Your task to perform on an android device: Find coffee shops on Maps Image 0: 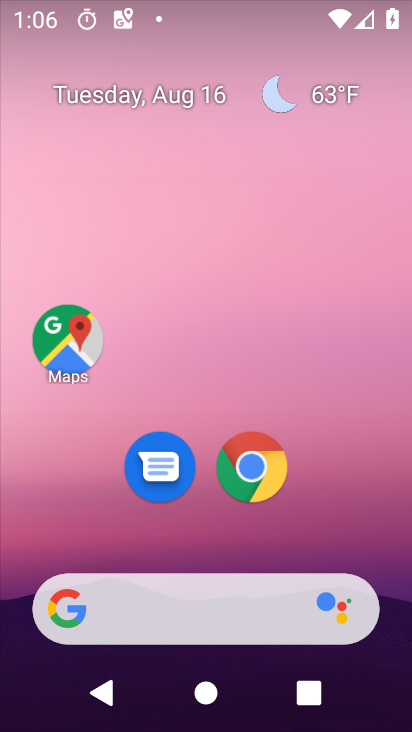
Step 0: press home button
Your task to perform on an android device: Find coffee shops on Maps Image 1: 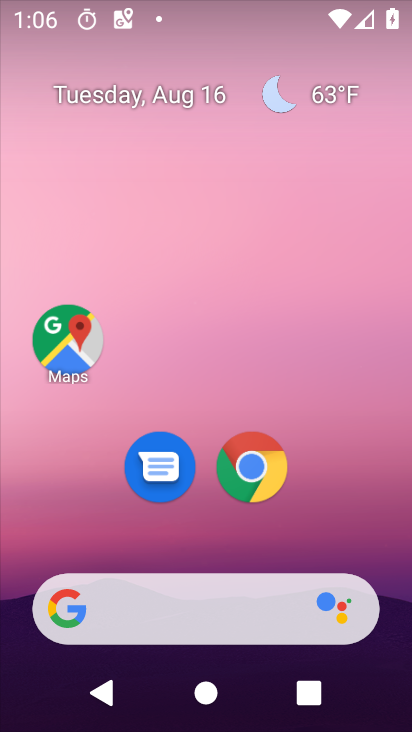
Step 1: drag from (330, 532) to (345, 67)
Your task to perform on an android device: Find coffee shops on Maps Image 2: 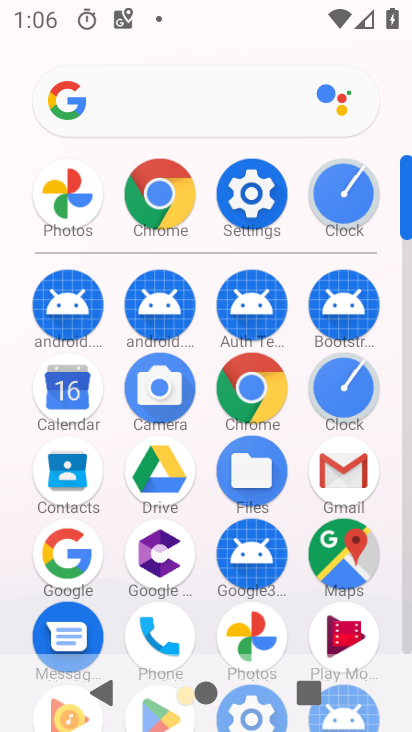
Step 2: click (346, 543)
Your task to perform on an android device: Find coffee shops on Maps Image 3: 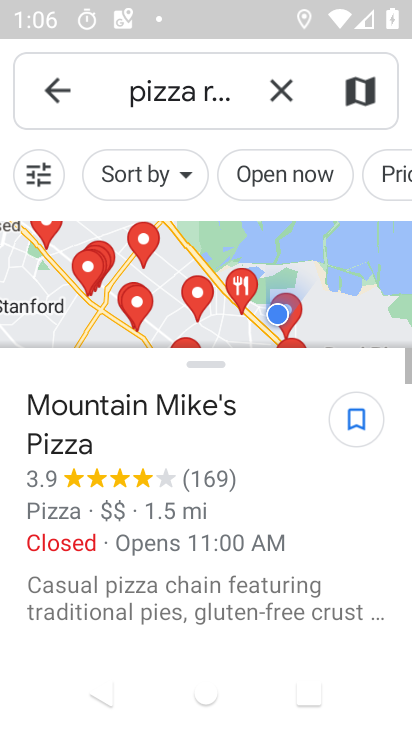
Step 3: press back button
Your task to perform on an android device: Find coffee shops on Maps Image 4: 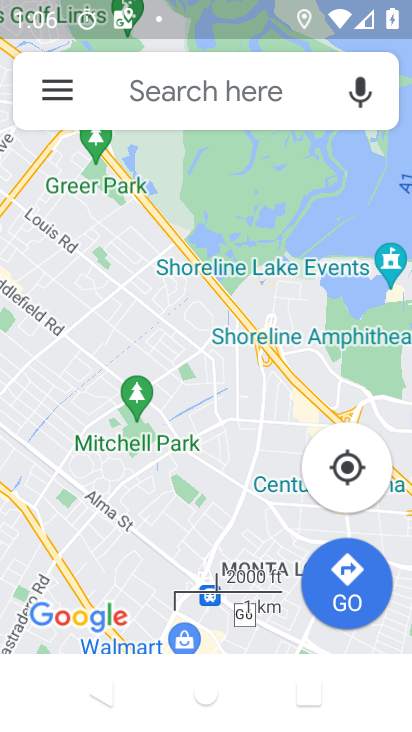
Step 4: click (190, 94)
Your task to perform on an android device: Find coffee shops on Maps Image 5: 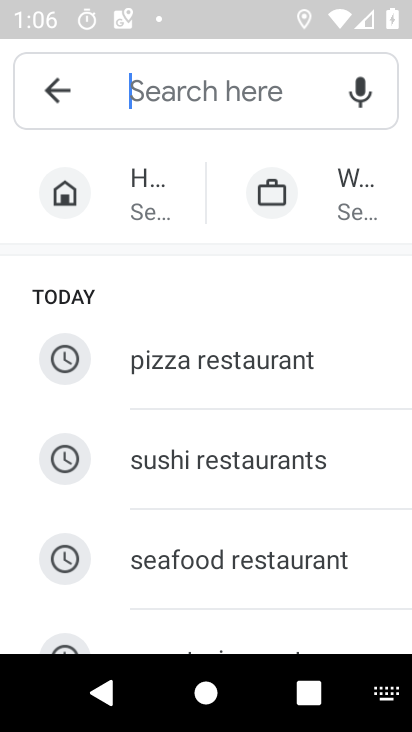
Step 5: press enter
Your task to perform on an android device: Find coffee shops on Maps Image 6: 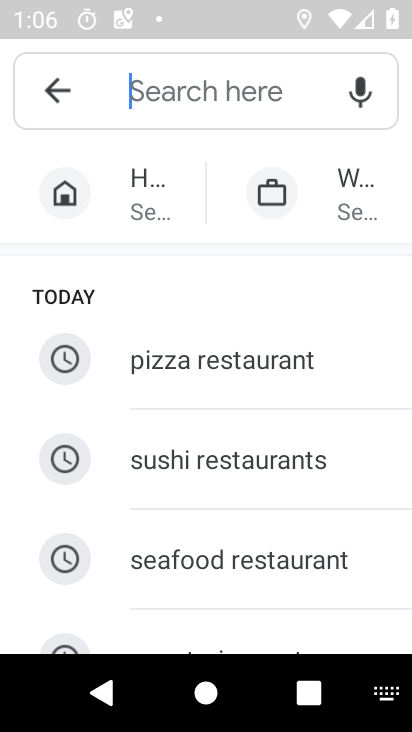
Step 6: type "coffee"
Your task to perform on an android device: Find coffee shops on Maps Image 7: 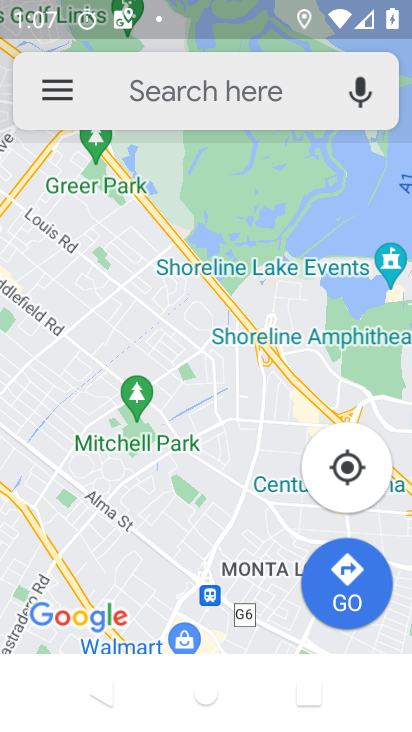
Step 7: click (217, 90)
Your task to perform on an android device: Find coffee shops on Maps Image 8: 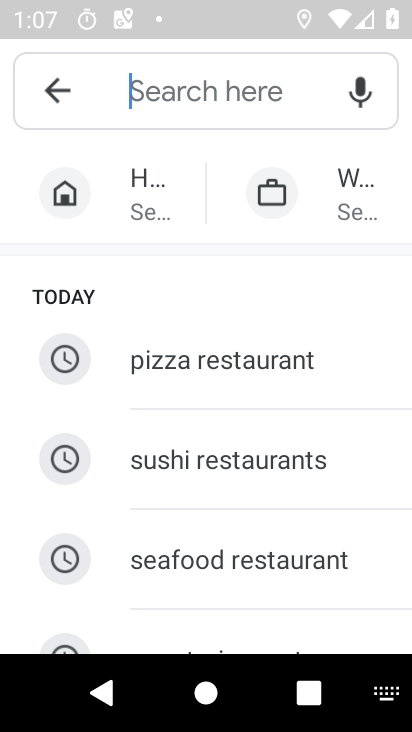
Step 8: type "coffee shops"
Your task to perform on an android device: Find coffee shops on Maps Image 9: 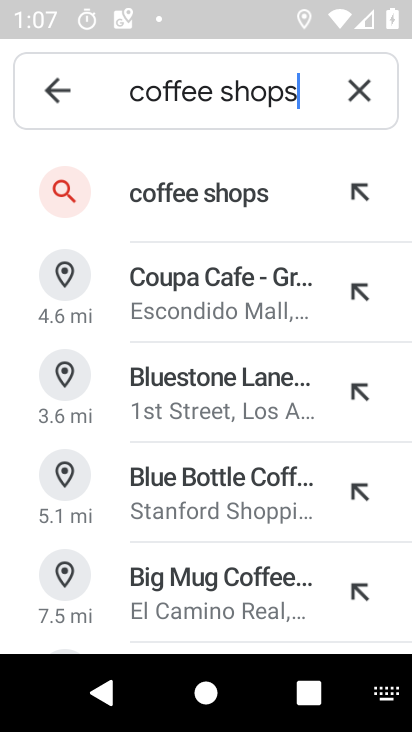
Step 9: click (204, 213)
Your task to perform on an android device: Find coffee shops on Maps Image 10: 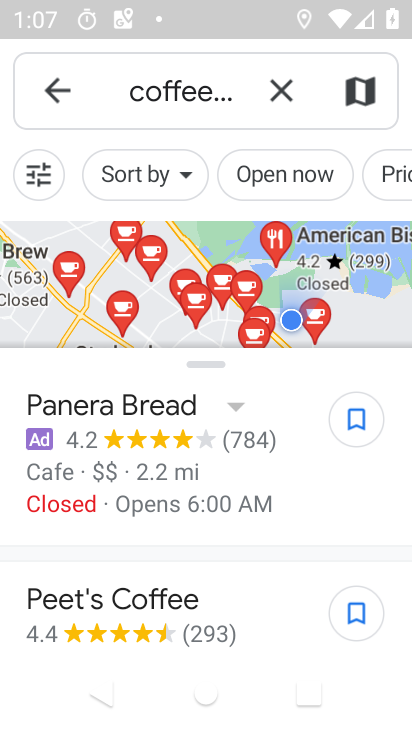
Step 10: task complete